Your task to perform on an android device: Turn on the flashlight Image 0: 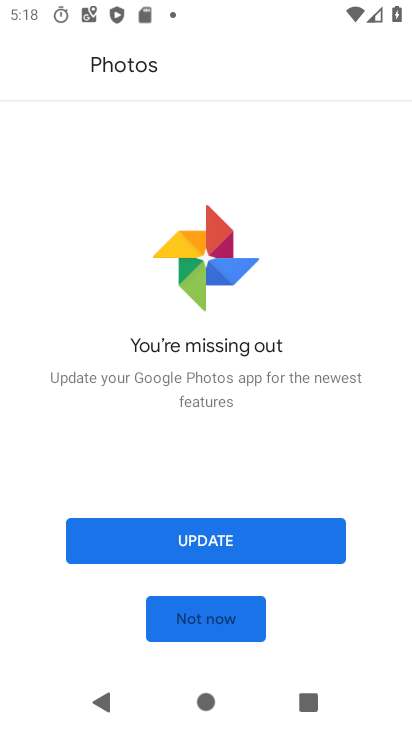
Step 0: press home button
Your task to perform on an android device: Turn on the flashlight Image 1: 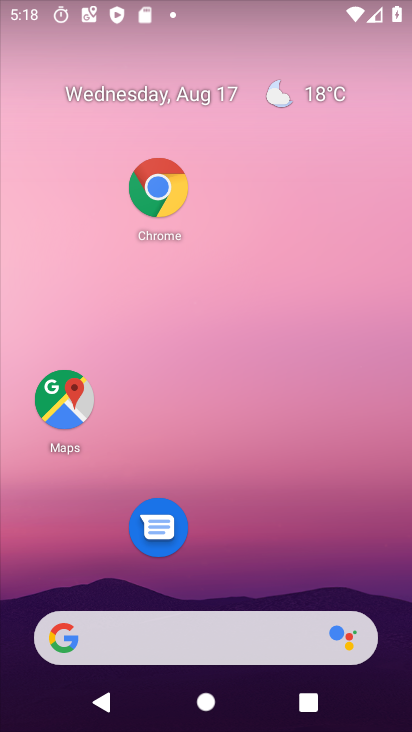
Step 1: drag from (230, 548) to (320, 14)
Your task to perform on an android device: Turn on the flashlight Image 2: 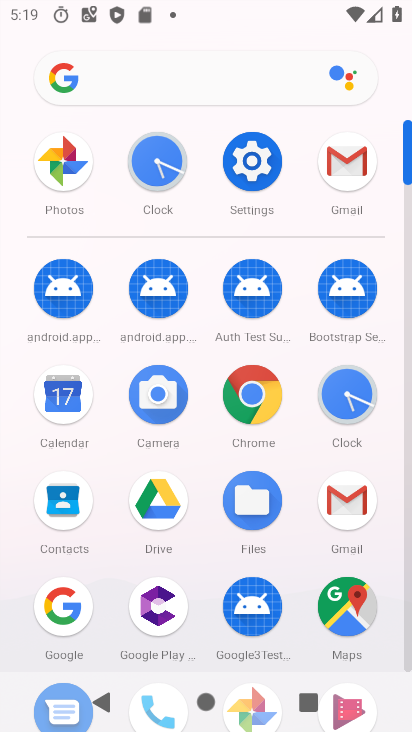
Step 2: click (258, 160)
Your task to perform on an android device: Turn on the flashlight Image 3: 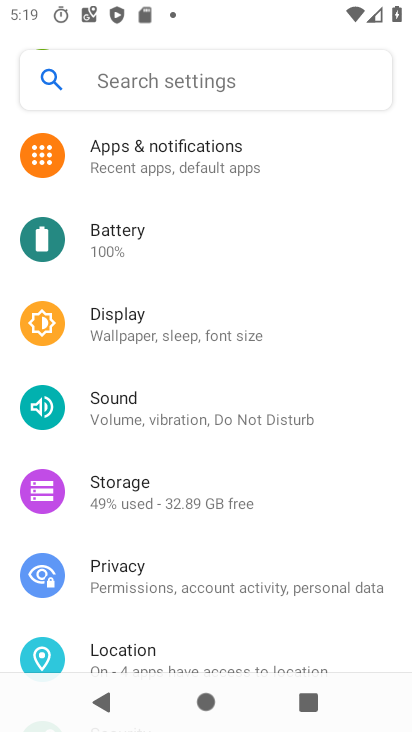
Step 3: task complete